Your task to perform on an android device: What's on my calendar tomorrow? Image 0: 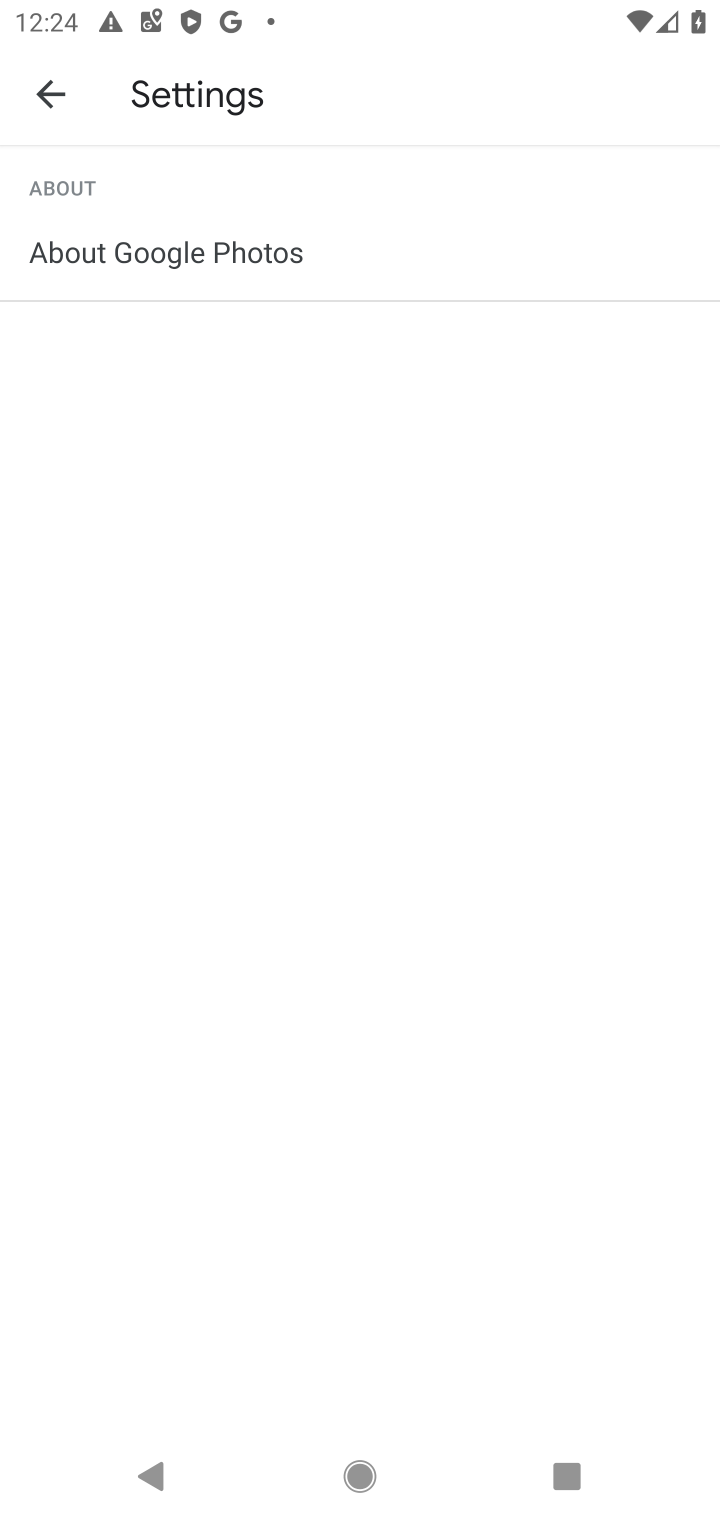
Step 0: click (54, 89)
Your task to perform on an android device: What's on my calendar tomorrow? Image 1: 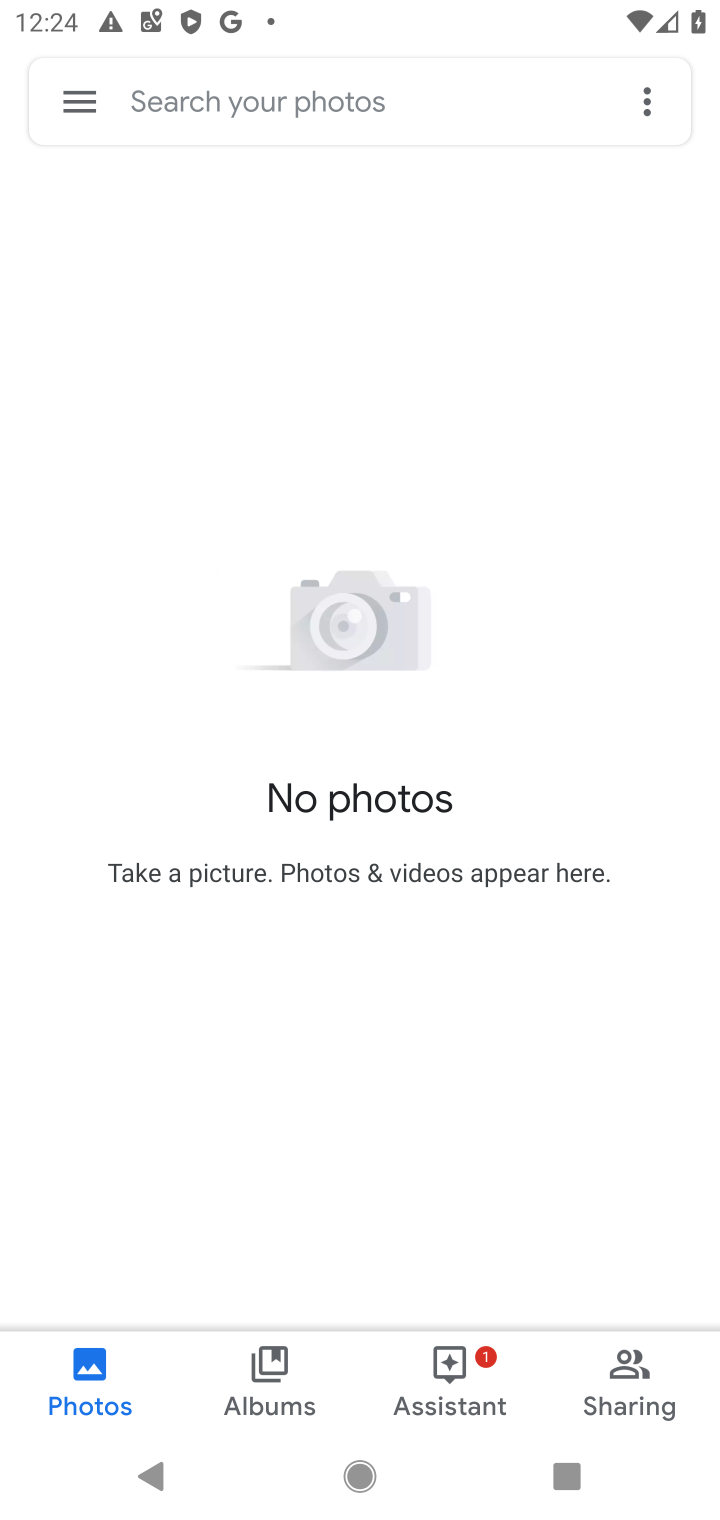
Step 1: click (41, 86)
Your task to perform on an android device: What's on my calendar tomorrow? Image 2: 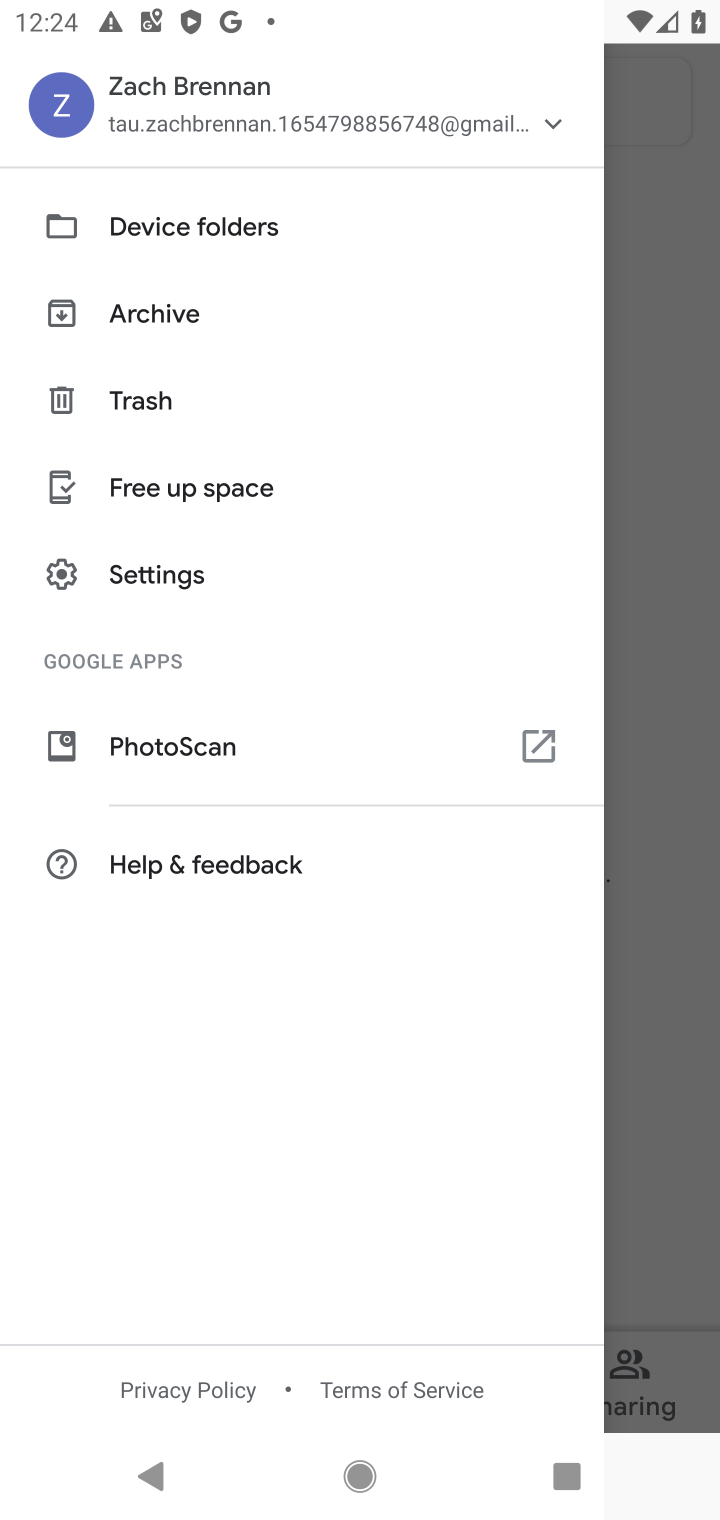
Step 2: click (687, 932)
Your task to perform on an android device: What's on my calendar tomorrow? Image 3: 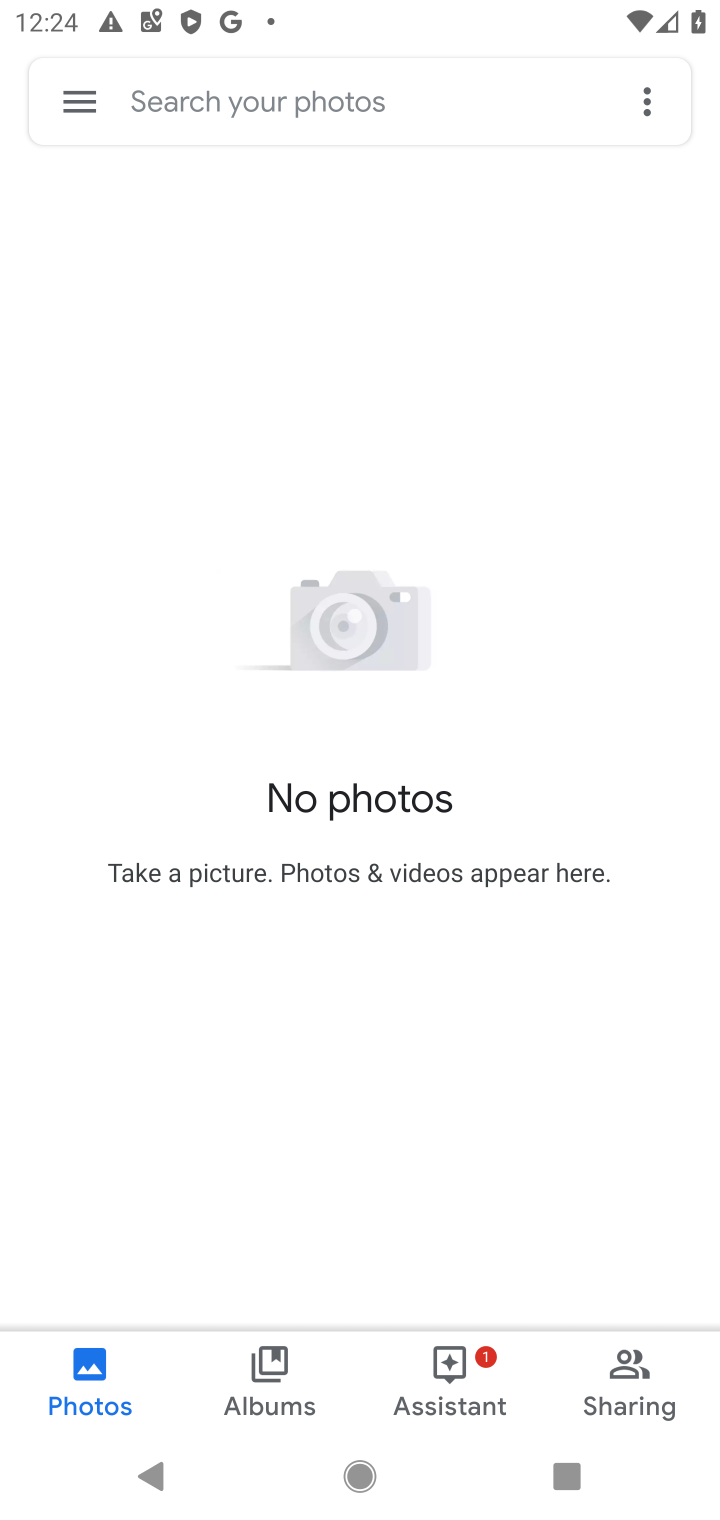
Step 3: press back button
Your task to perform on an android device: What's on my calendar tomorrow? Image 4: 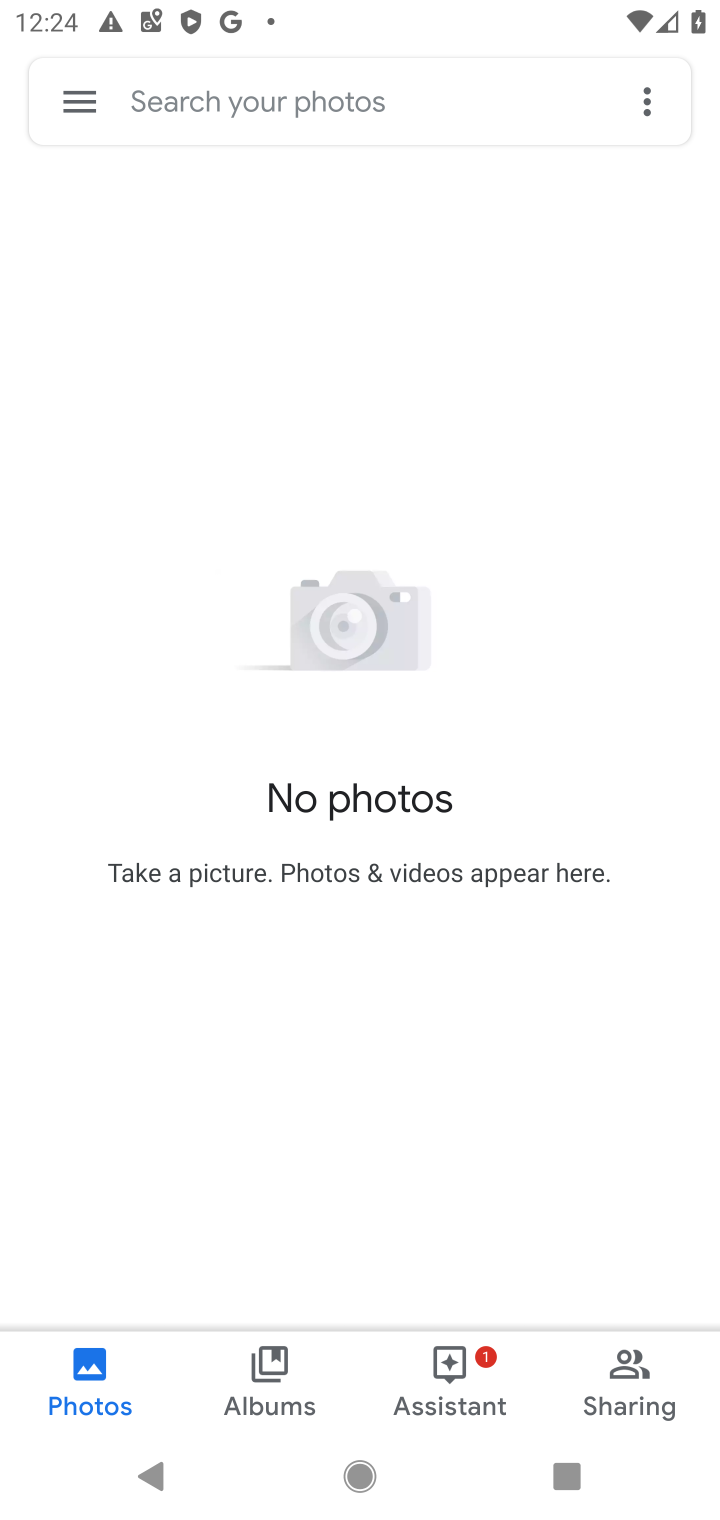
Step 4: press back button
Your task to perform on an android device: What's on my calendar tomorrow? Image 5: 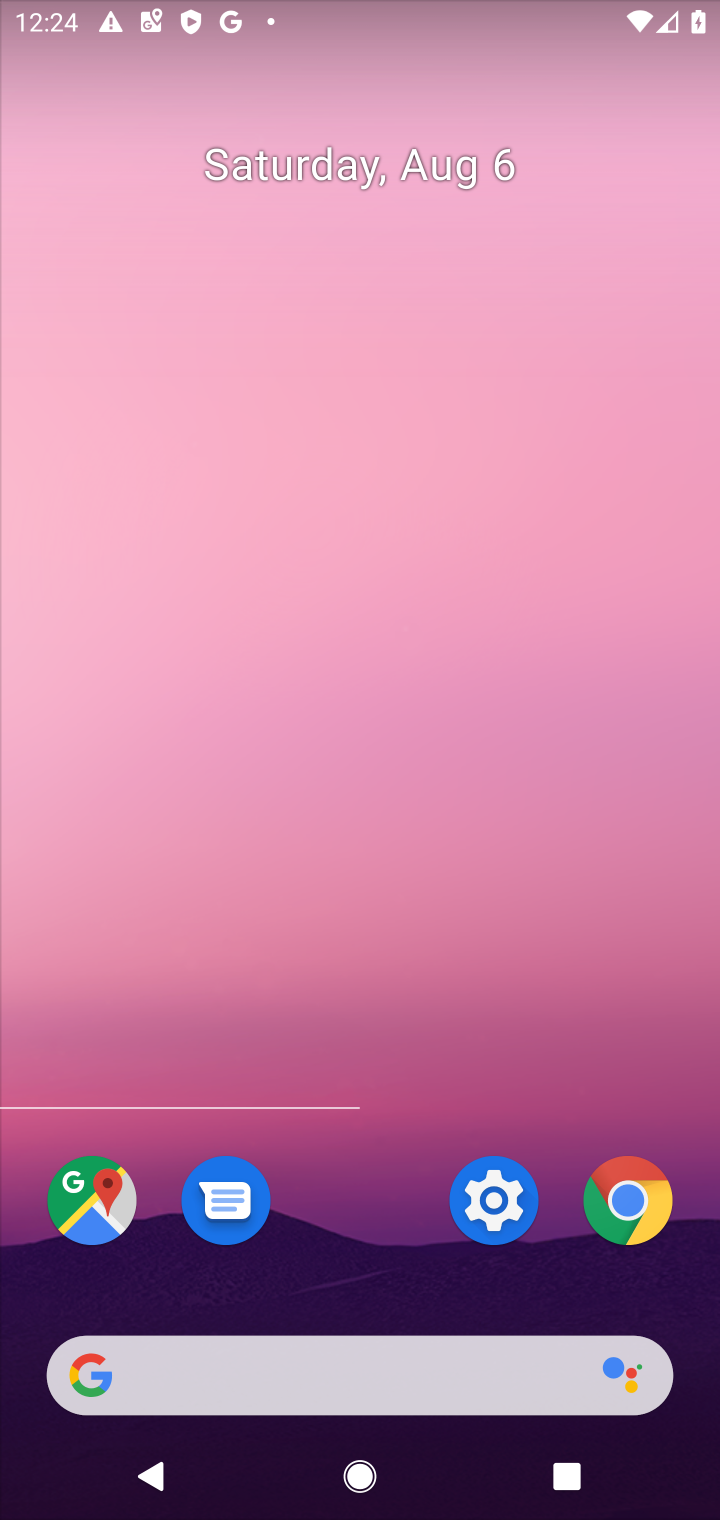
Step 5: drag from (405, 352) to (442, 169)
Your task to perform on an android device: What's on my calendar tomorrow? Image 6: 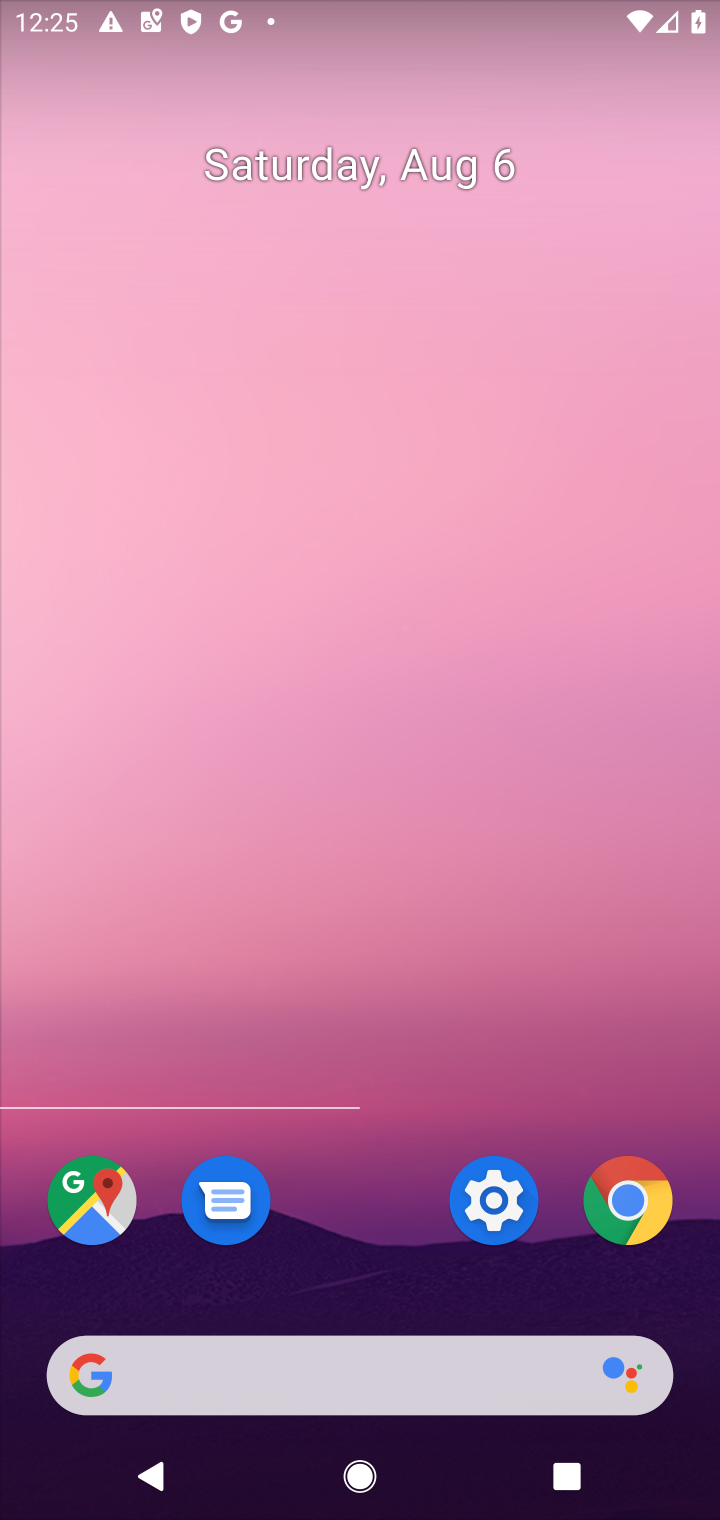
Step 6: click (385, 208)
Your task to perform on an android device: What's on my calendar tomorrow? Image 7: 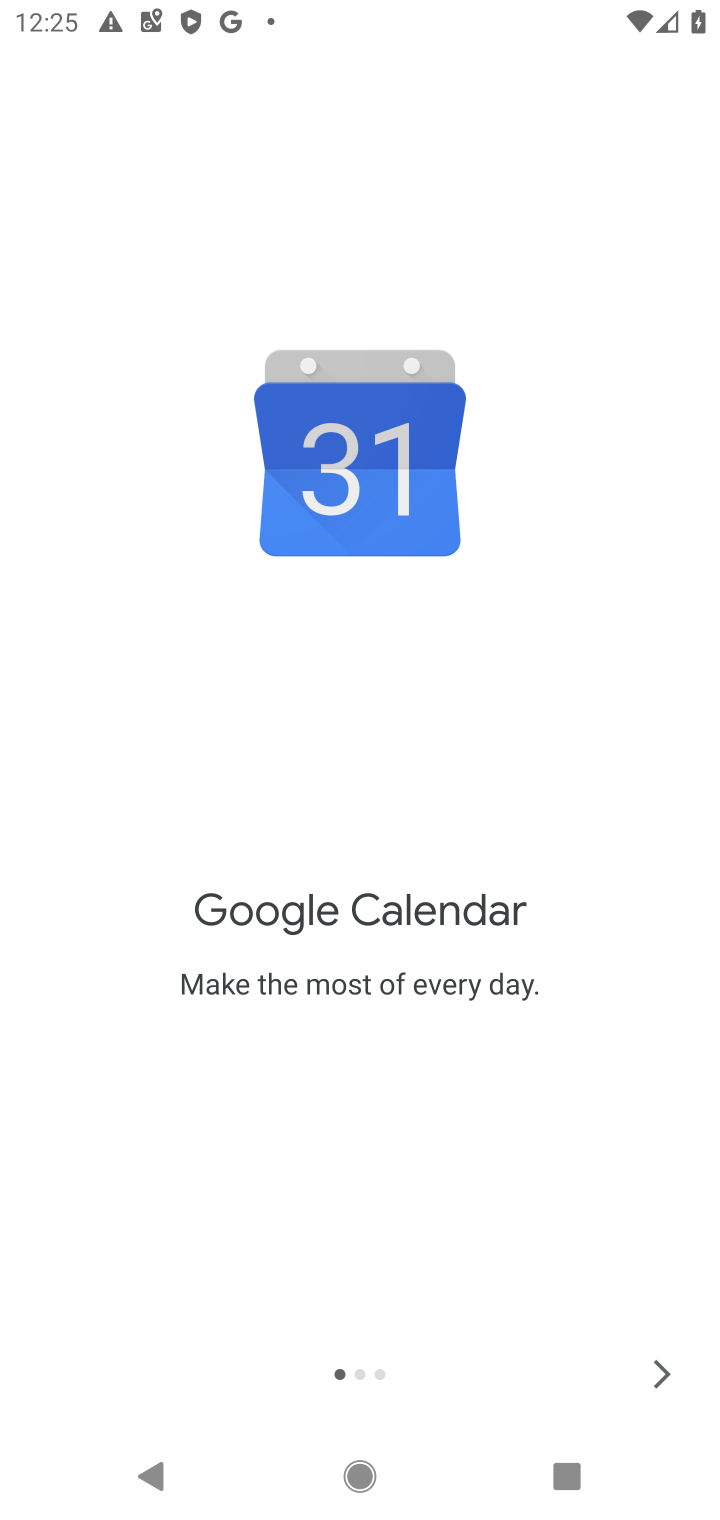
Step 7: click (380, 379)
Your task to perform on an android device: What's on my calendar tomorrow? Image 8: 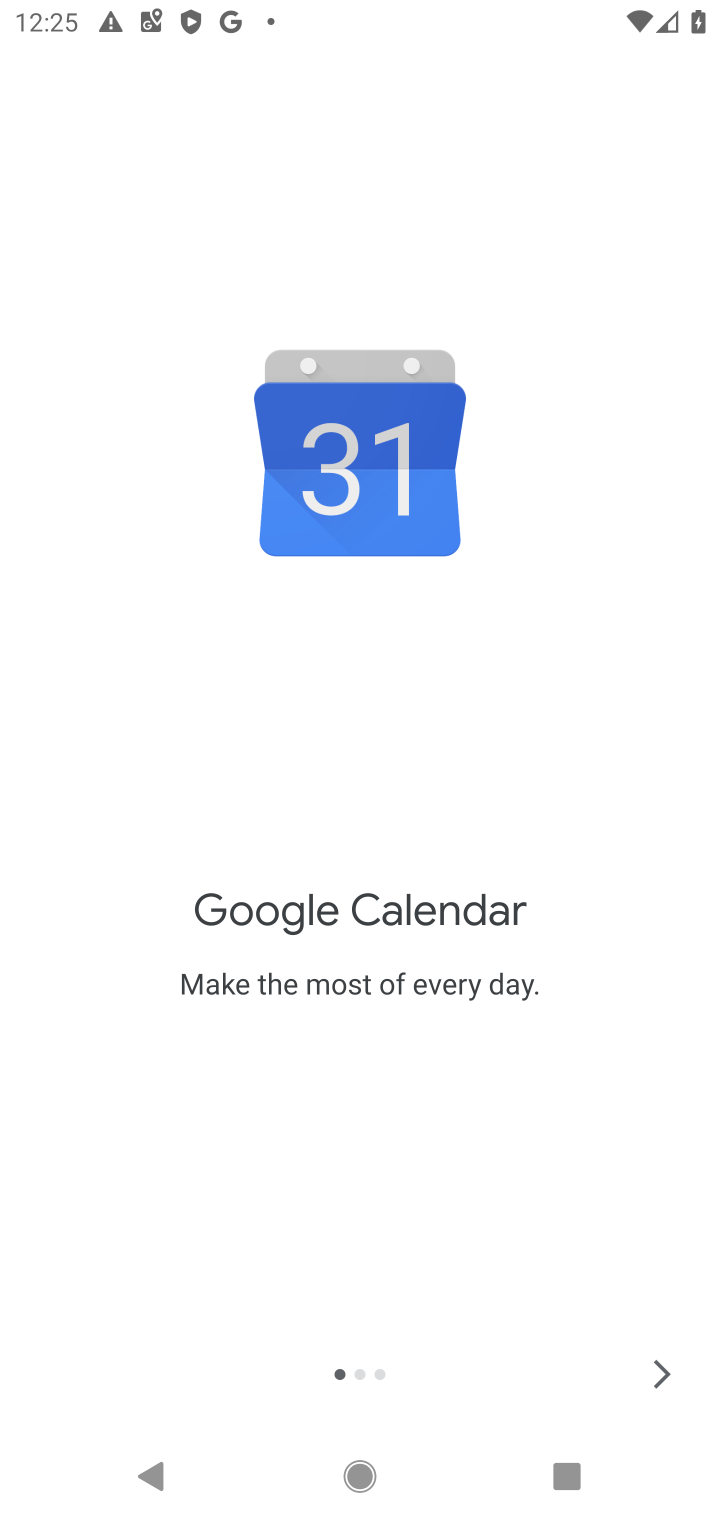
Step 8: drag from (441, 614) to (486, 218)
Your task to perform on an android device: What's on my calendar tomorrow? Image 9: 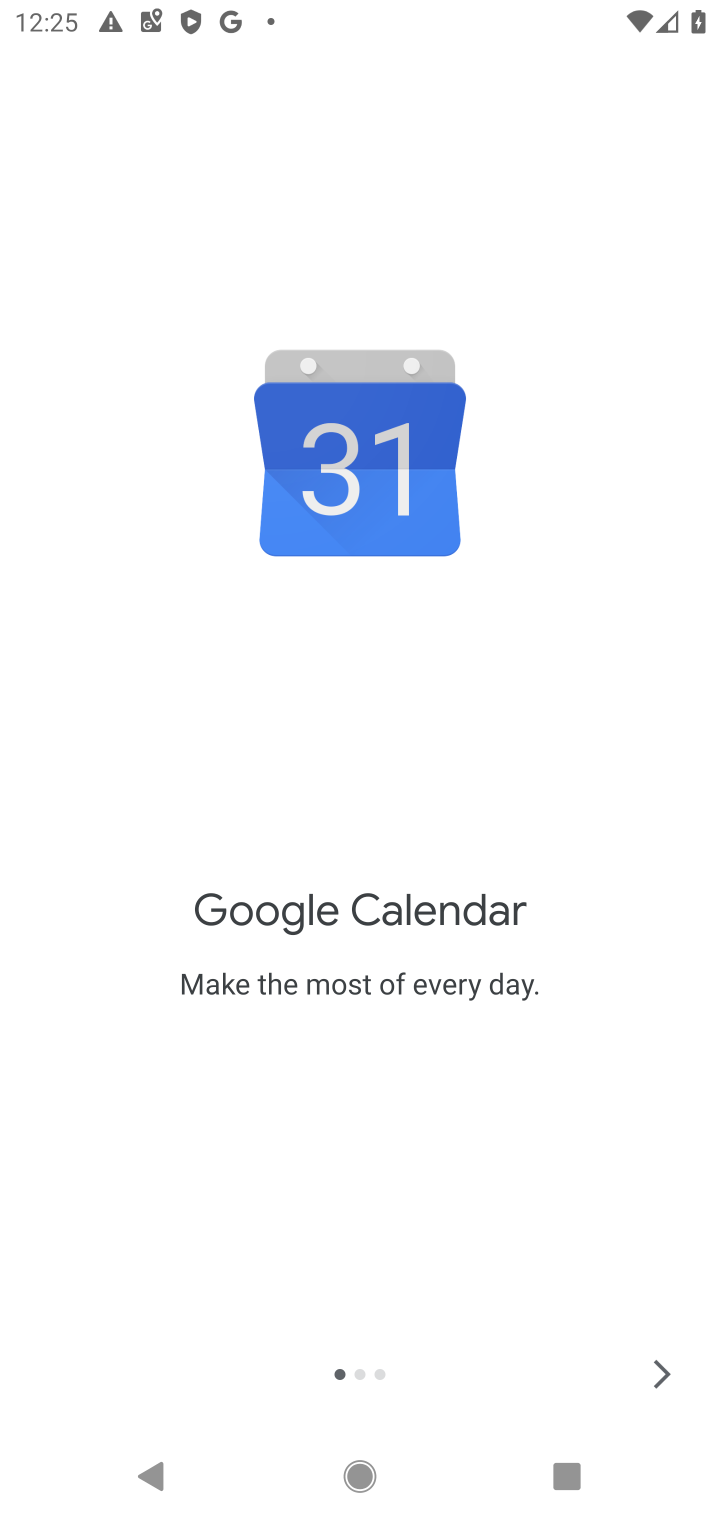
Step 9: drag from (514, 267) to (439, 263)
Your task to perform on an android device: What's on my calendar tomorrow? Image 10: 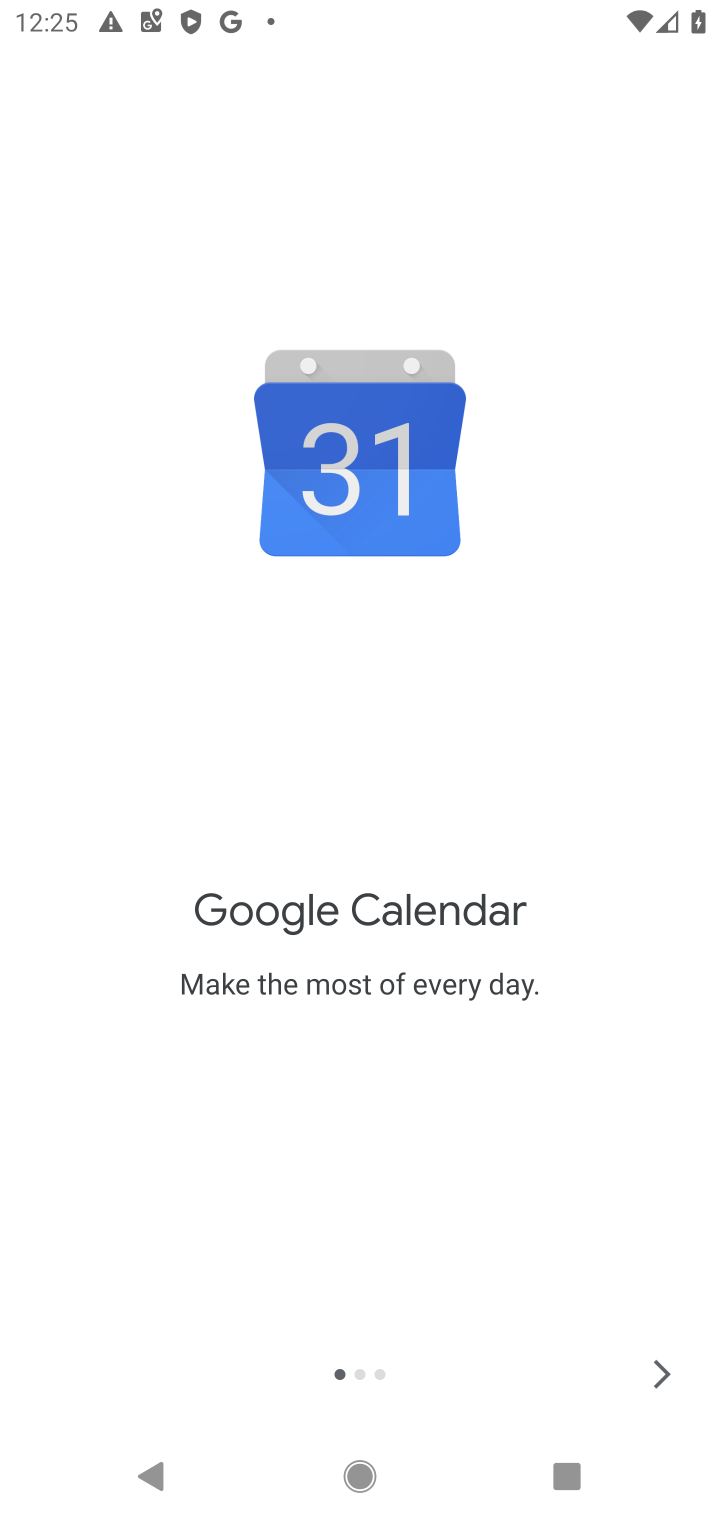
Step 10: click (371, 144)
Your task to perform on an android device: What's on my calendar tomorrow? Image 11: 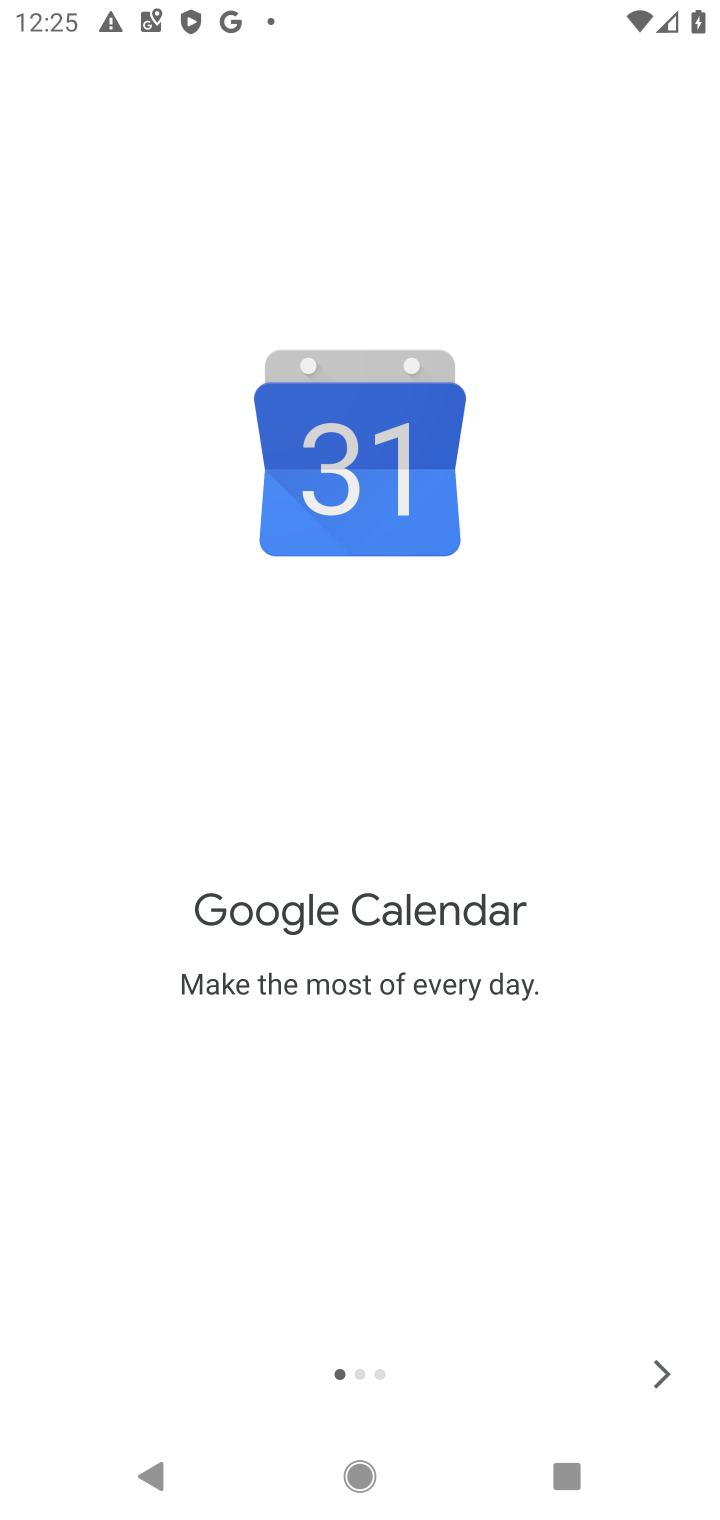
Step 11: drag from (466, 951) to (344, 358)
Your task to perform on an android device: What's on my calendar tomorrow? Image 12: 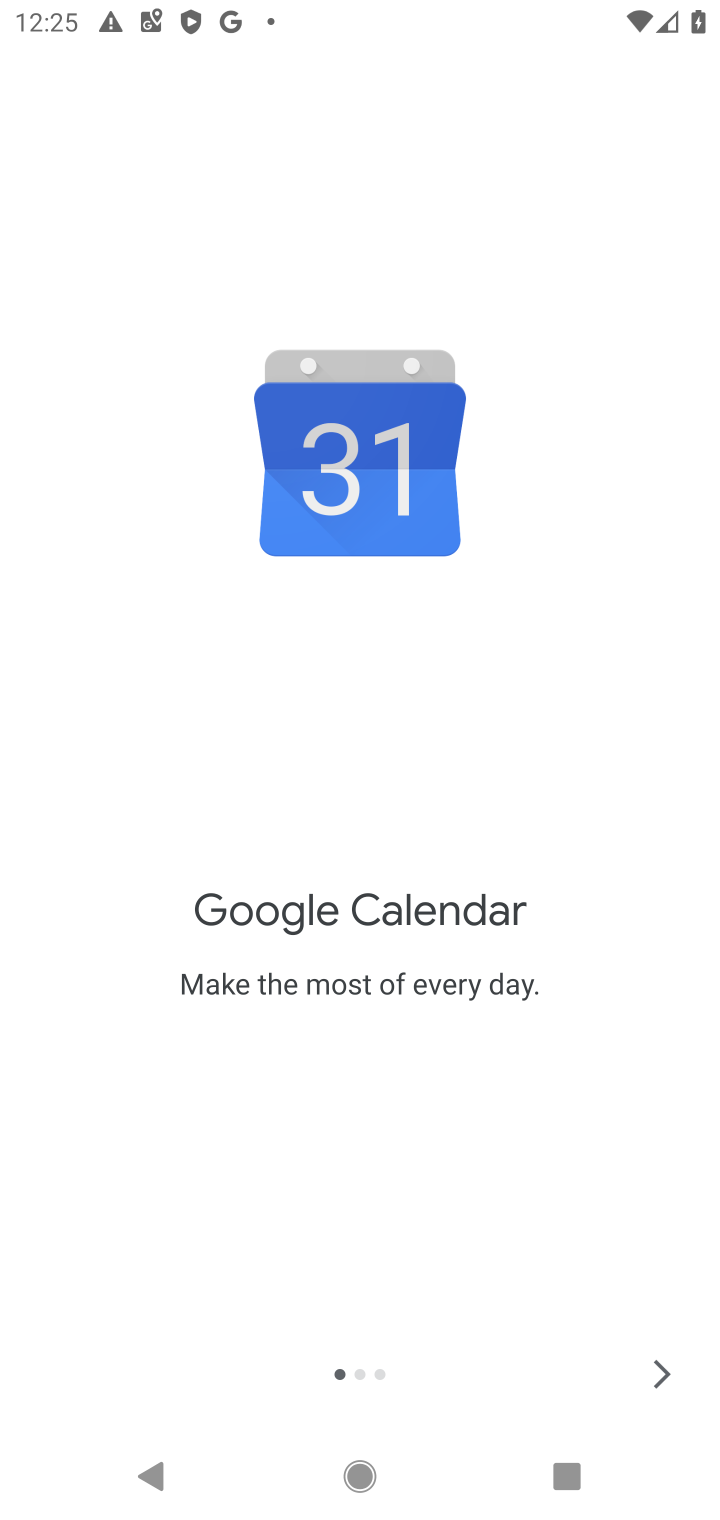
Step 12: click (267, 167)
Your task to perform on an android device: What's on my calendar tomorrow? Image 13: 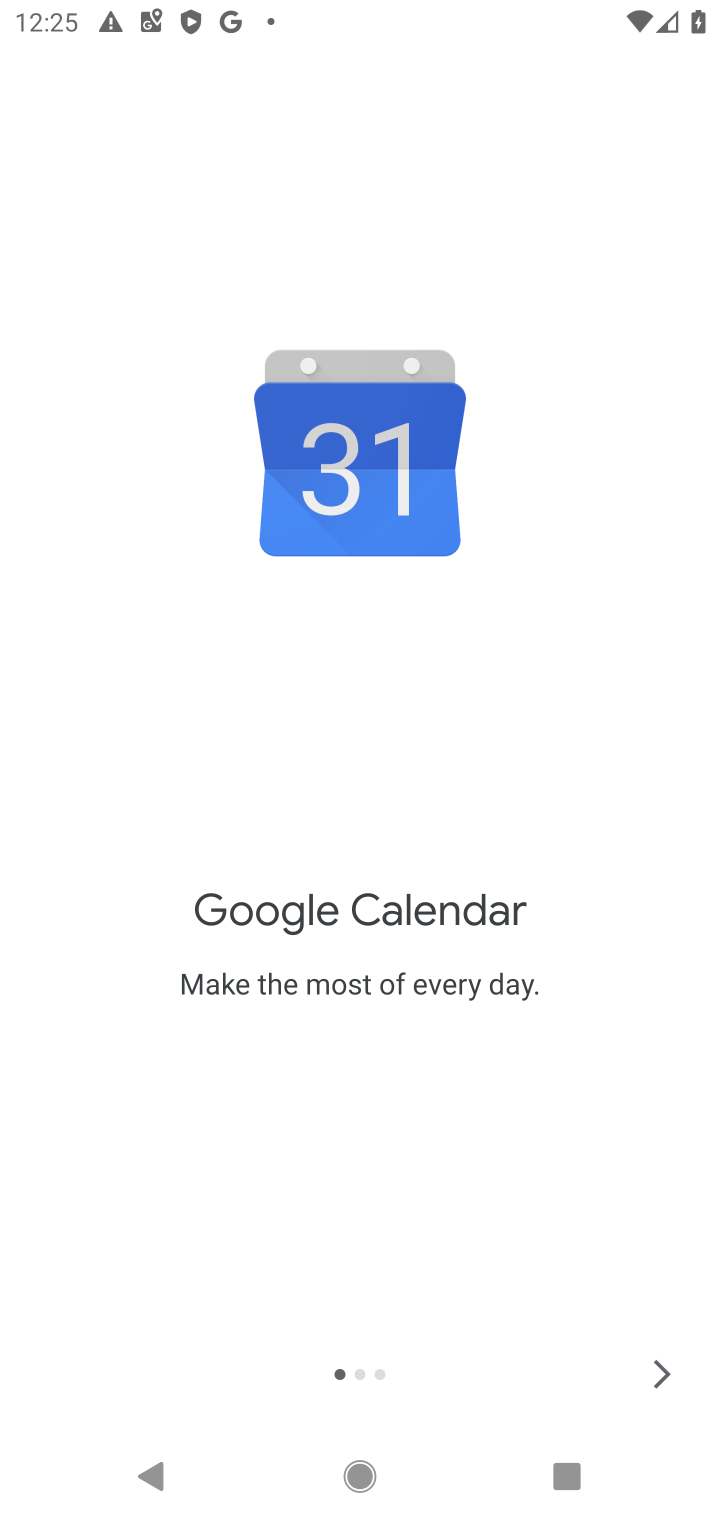
Step 13: drag from (197, 1164) to (383, 681)
Your task to perform on an android device: What's on my calendar tomorrow? Image 14: 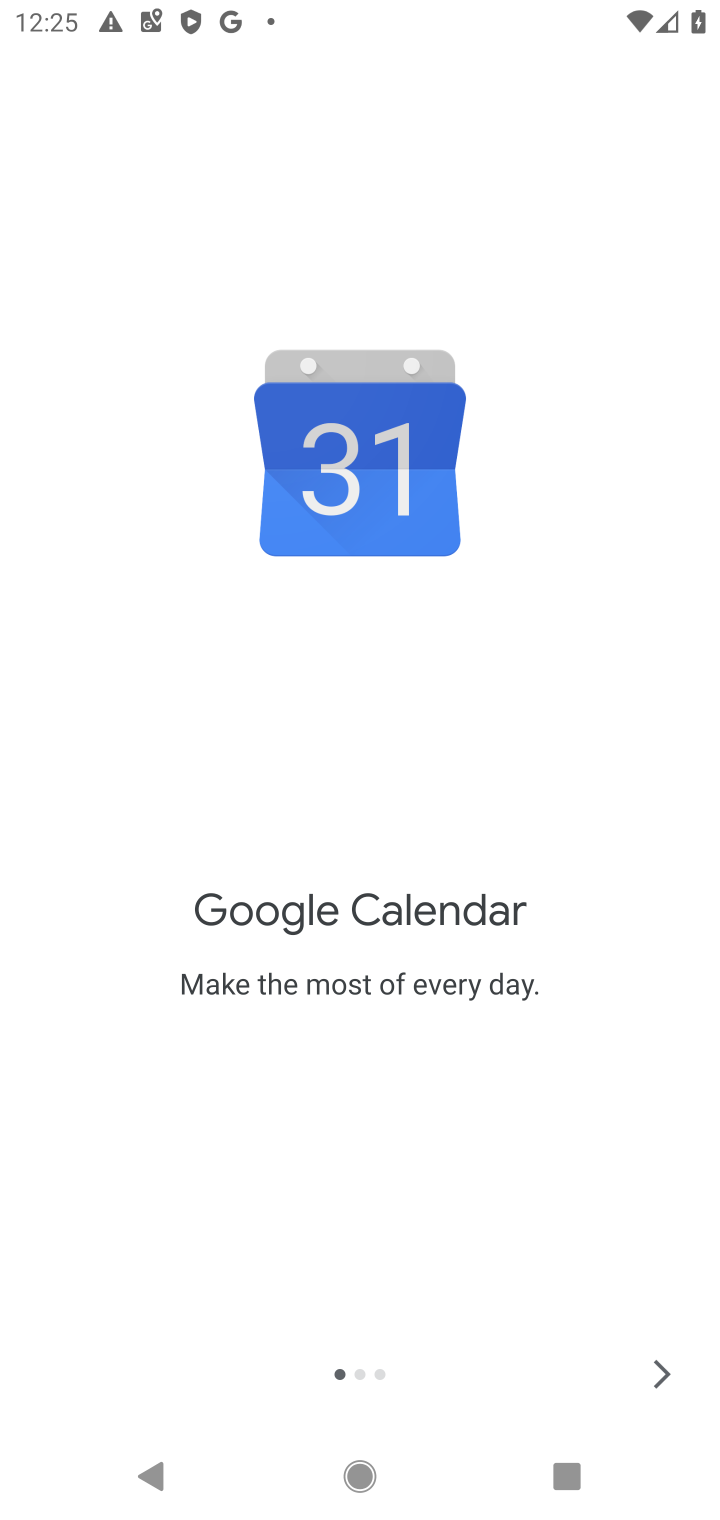
Step 14: click (641, 1366)
Your task to perform on an android device: What's on my calendar tomorrow? Image 15: 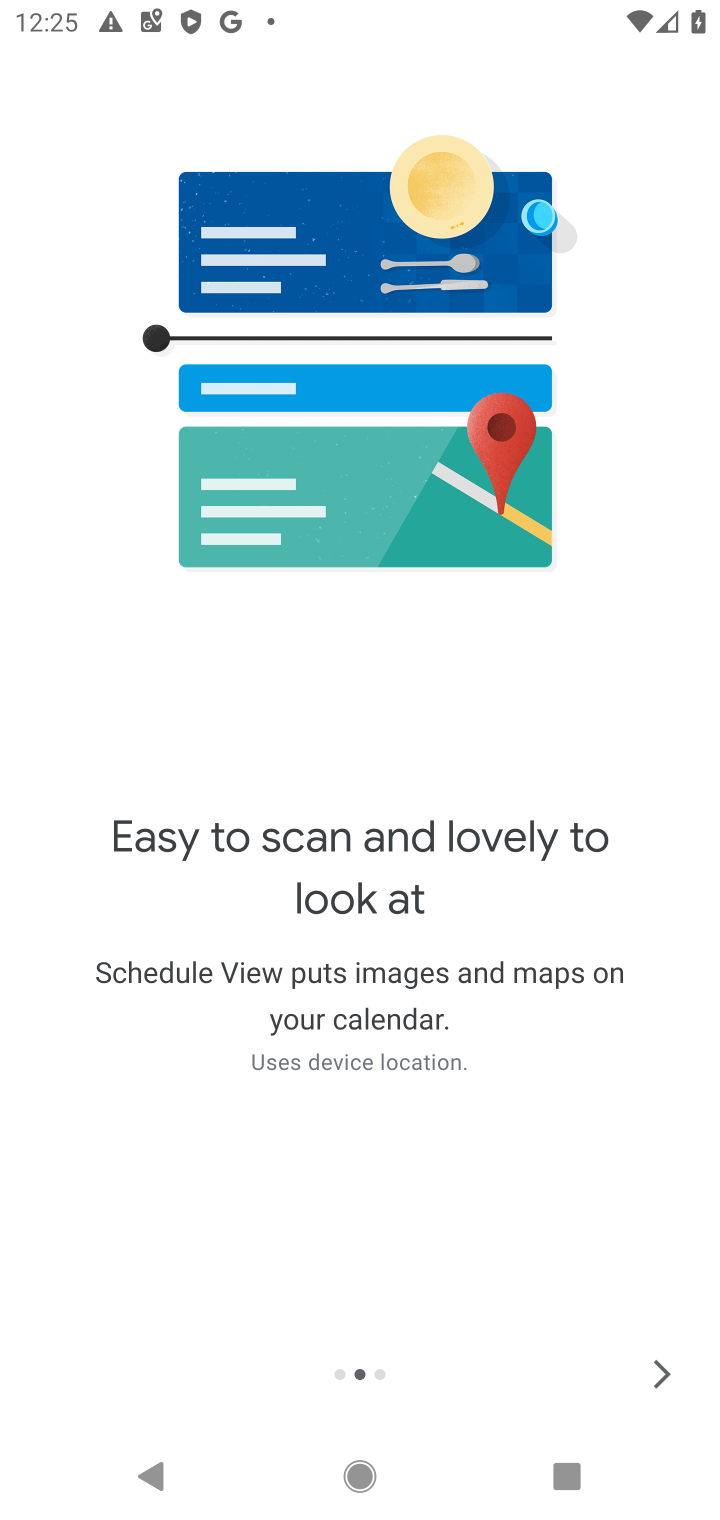
Step 15: click (657, 1377)
Your task to perform on an android device: What's on my calendar tomorrow? Image 16: 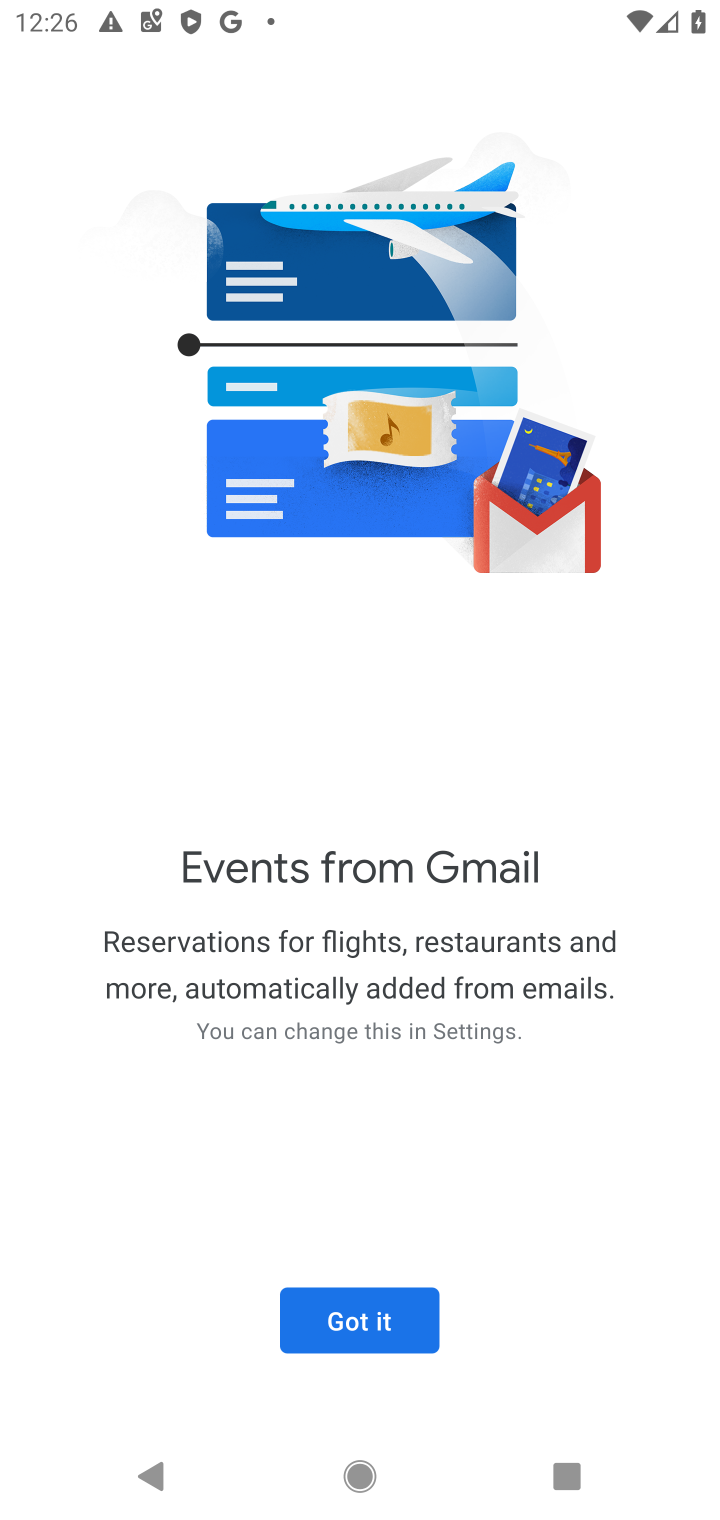
Step 16: click (346, 1306)
Your task to perform on an android device: What's on my calendar tomorrow? Image 17: 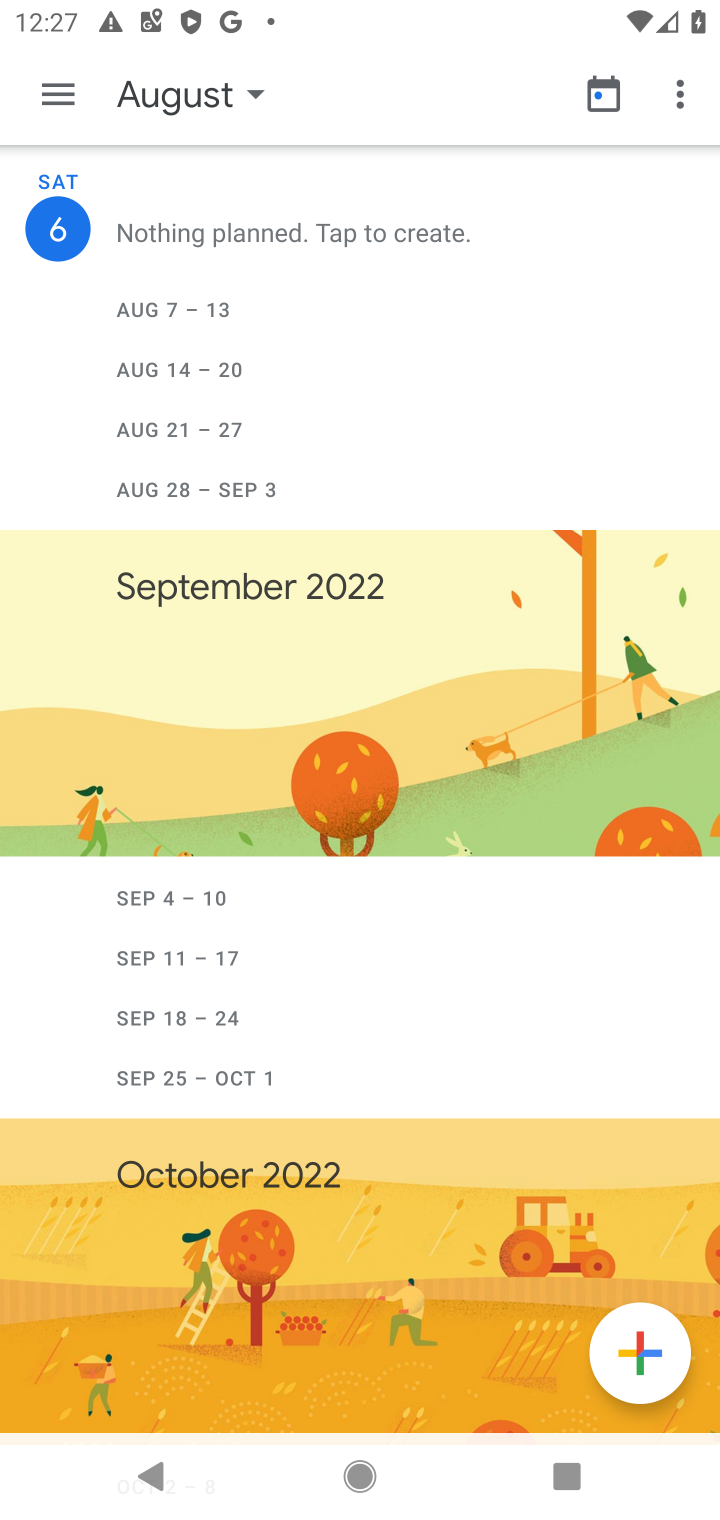
Step 17: click (248, 96)
Your task to perform on an android device: What's on my calendar tomorrow? Image 18: 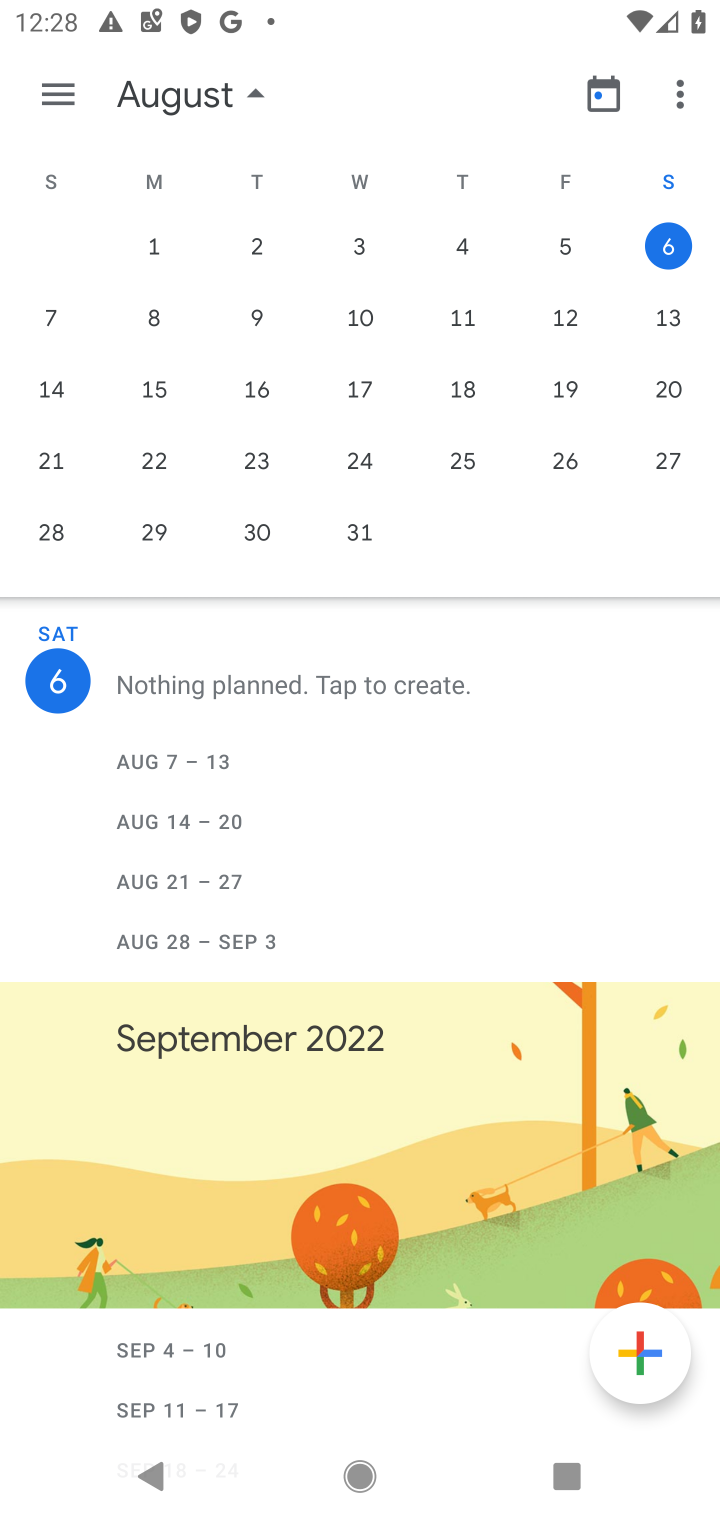
Step 18: task complete